Your task to perform on an android device: toggle location history Image 0: 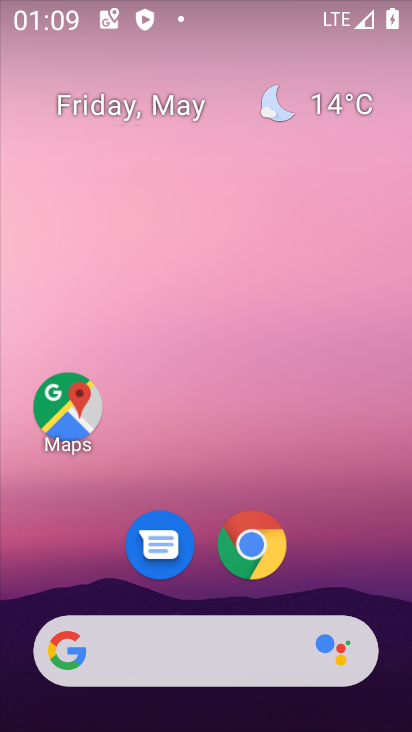
Step 0: drag from (284, 593) to (265, 23)
Your task to perform on an android device: toggle location history Image 1: 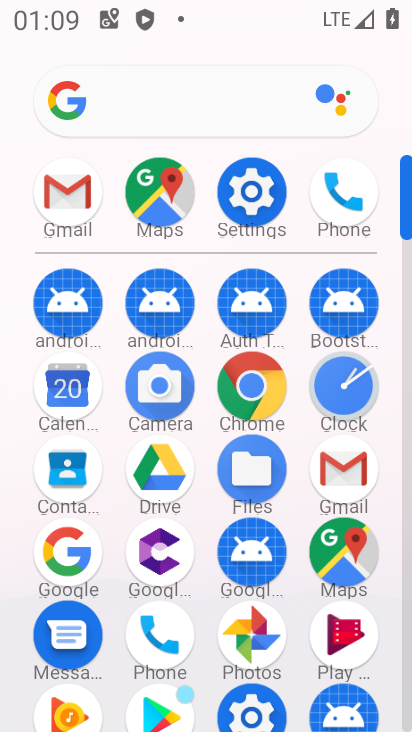
Step 1: click (228, 199)
Your task to perform on an android device: toggle location history Image 2: 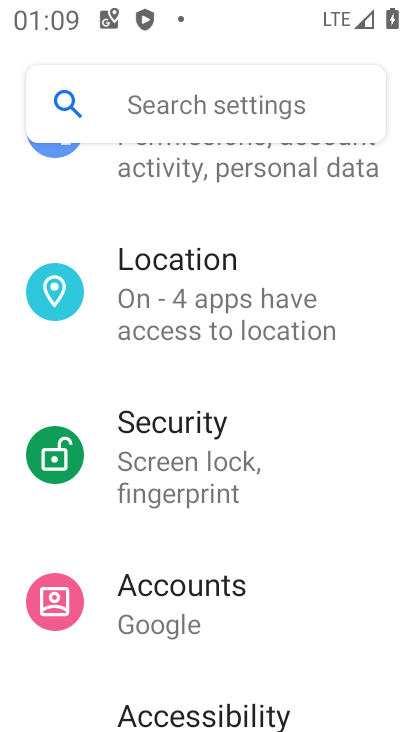
Step 2: click (208, 299)
Your task to perform on an android device: toggle location history Image 3: 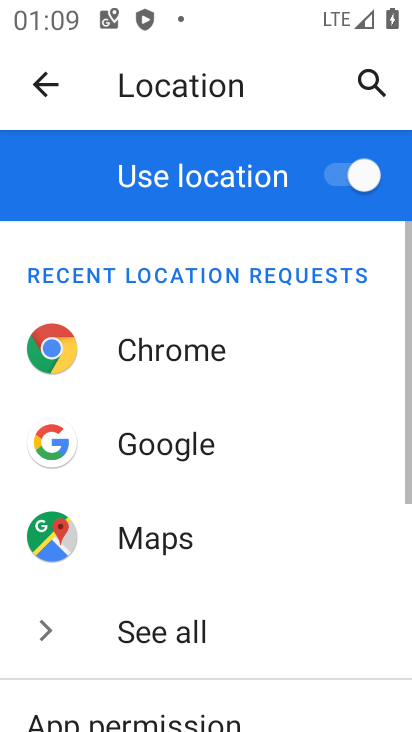
Step 3: drag from (223, 671) to (231, 221)
Your task to perform on an android device: toggle location history Image 4: 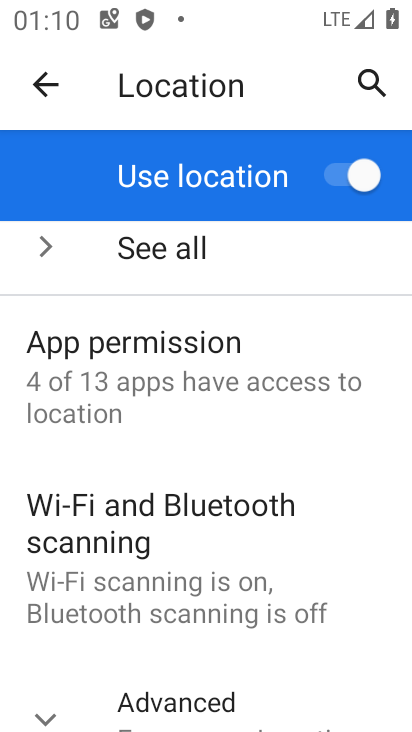
Step 4: drag from (178, 668) to (183, 435)
Your task to perform on an android device: toggle location history Image 5: 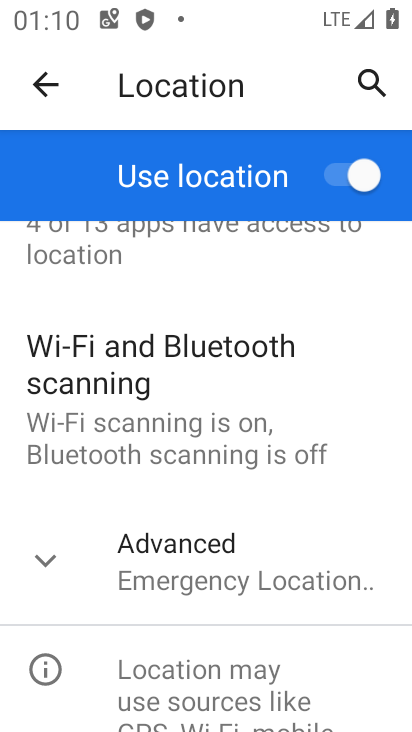
Step 5: click (182, 587)
Your task to perform on an android device: toggle location history Image 6: 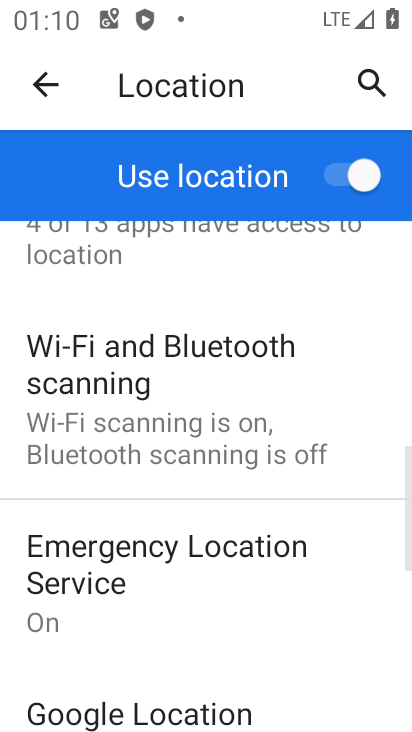
Step 6: drag from (215, 674) to (222, 406)
Your task to perform on an android device: toggle location history Image 7: 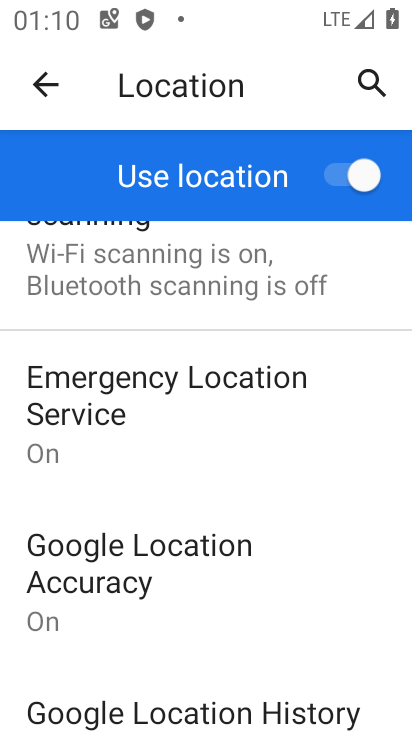
Step 7: drag from (216, 582) to (202, 438)
Your task to perform on an android device: toggle location history Image 8: 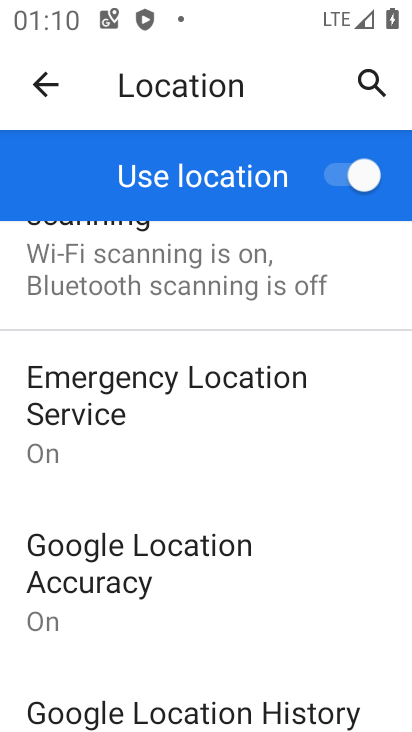
Step 8: click (193, 711)
Your task to perform on an android device: toggle location history Image 9: 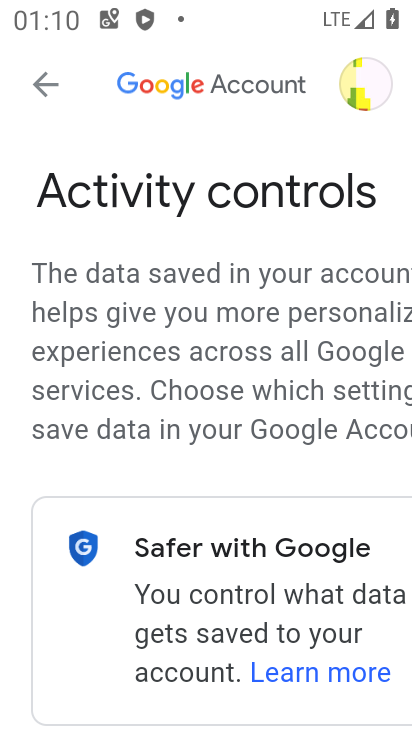
Step 9: drag from (281, 583) to (319, 134)
Your task to perform on an android device: toggle location history Image 10: 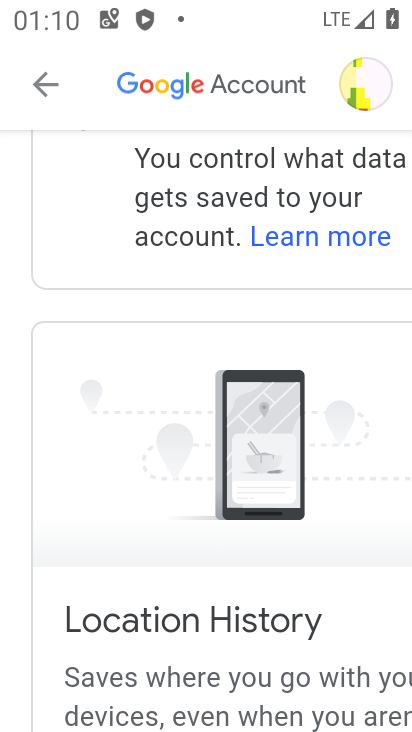
Step 10: drag from (256, 628) to (254, 280)
Your task to perform on an android device: toggle location history Image 11: 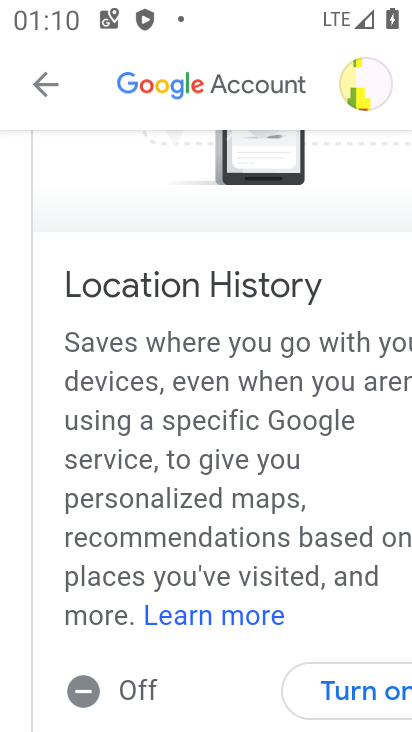
Step 11: click (352, 687)
Your task to perform on an android device: toggle location history Image 12: 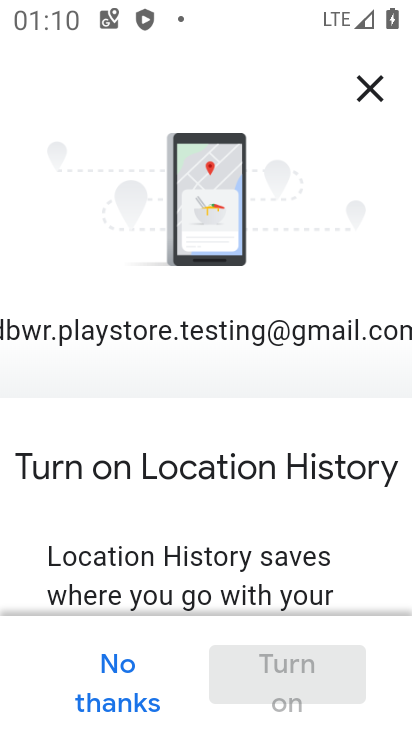
Step 12: drag from (197, 578) to (188, 134)
Your task to perform on an android device: toggle location history Image 13: 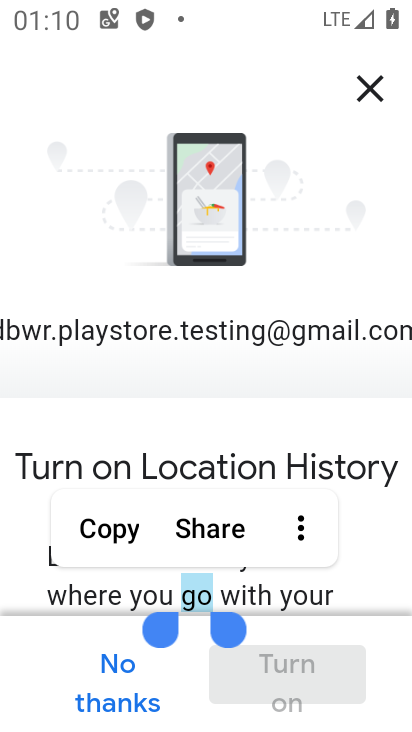
Step 13: drag from (355, 555) to (338, 199)
Your task to perform on an android device: toggle location history Image 14: 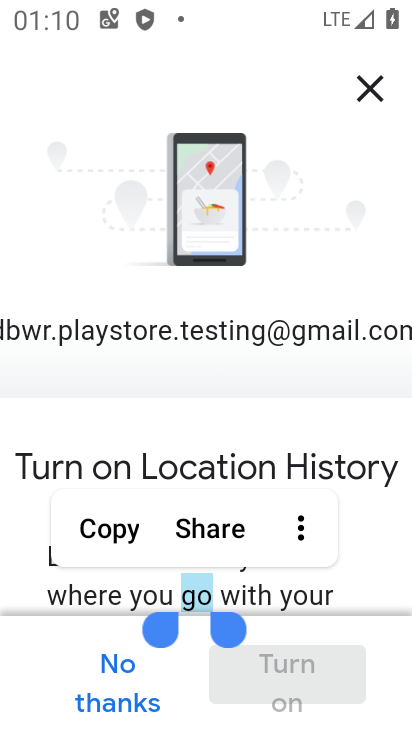
Step 14: drag from (357, 518) to (322, 236)
Your task to perform on an android device: toggle location history Image 15: 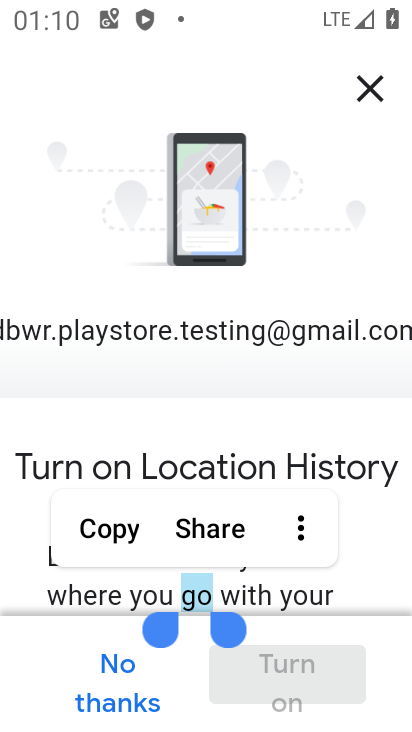
Step 15: drag from (359, 581) to (346, 289)
Your task to perform on an android device: toggle location history Image 16: 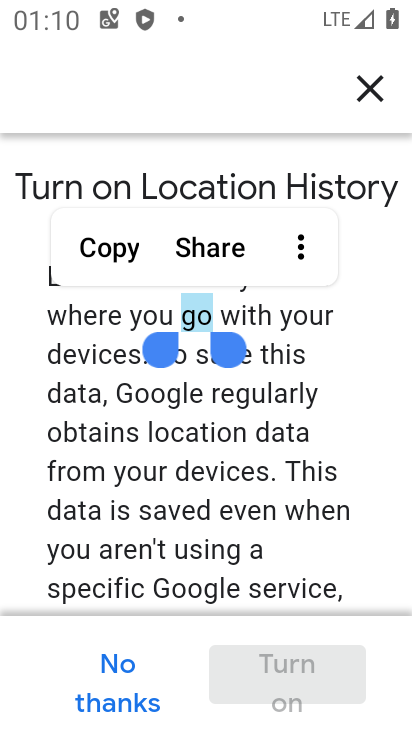
Step 16: drag from (291, 428) to (293, 214)
Your task to perform on an android device: toggle location history Image 17: 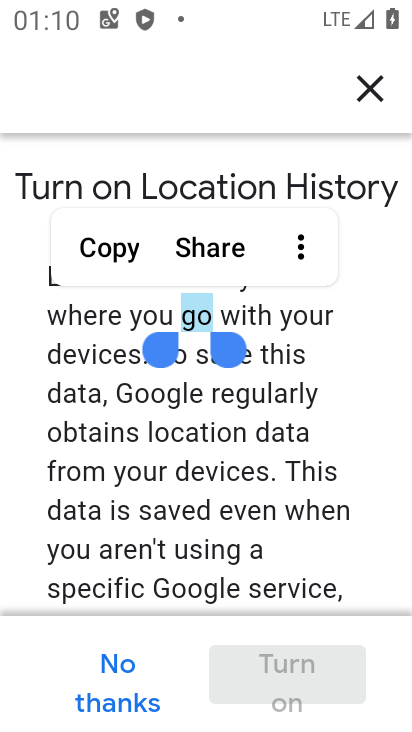
Step 17: drag from (194, 547) to (214, 293)
Your task to perform on an android device: toggle location history Image 18: 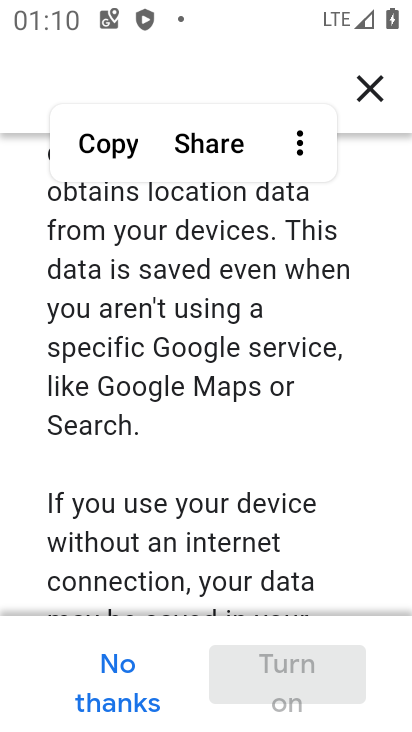
Step 18: drag from (192, 550) to (225, 182)
Your task to perform on an android device: toggle location history Image 19: 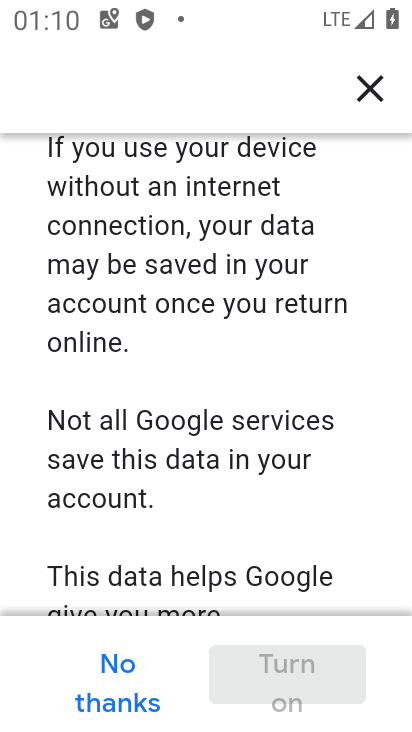
Step 19: drag from (179, 541) to (197, 233)
Your task to perform on an android device: toggle location history Image 20: 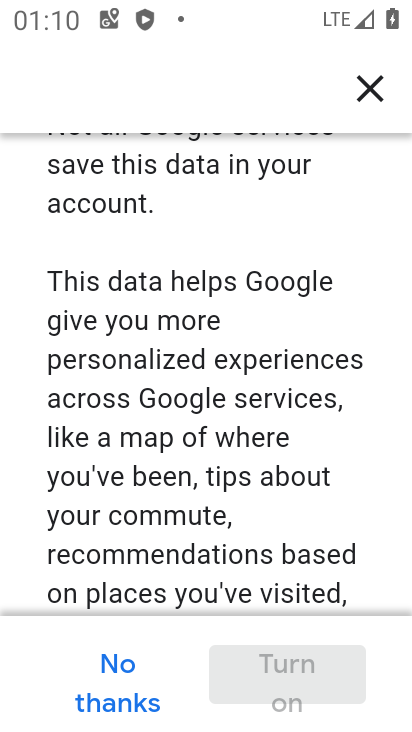
Step 20: drag from (176, 555) to (227, 211)
Your task to perform on an android device: toggle location history Image 21: 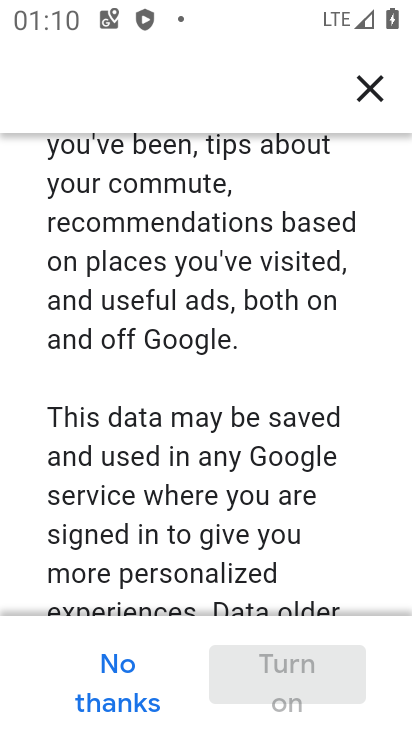
Step 21: drag from (220, 541) to (242, 160)
Your task to perform on an android device: toggle location history Image 22: 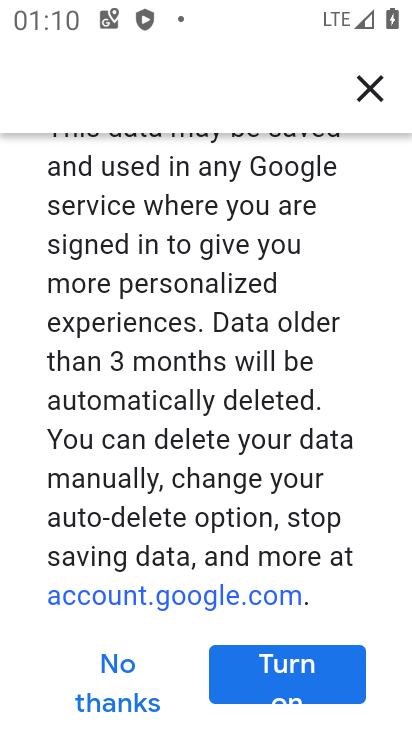
Step 22: drag from (236, 558) to (251, 184)
Your task to perform on an android device: toggle location history Image 23: 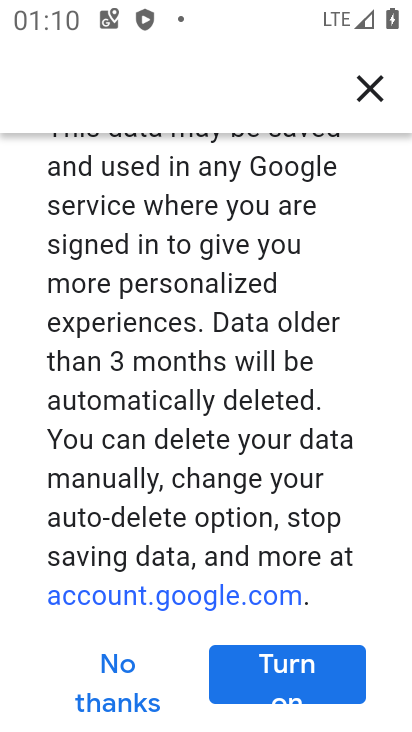
Step 23: click (277, 684)
Your task to perform on an android device: toggle location history Image 24: 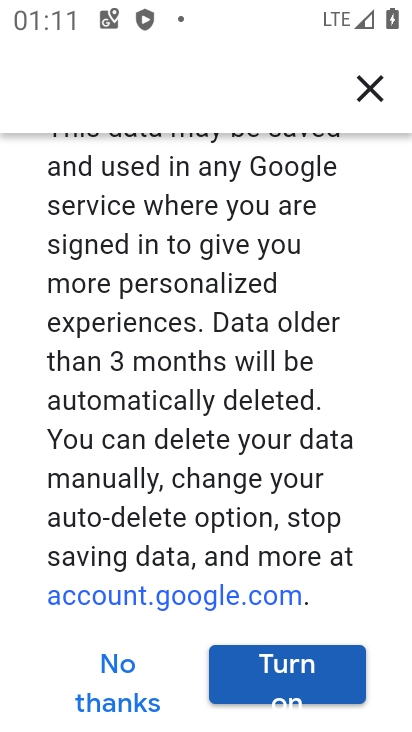
Step 24: click (274, 680)
Your task to perform on an android device: toggle location history Image 25: 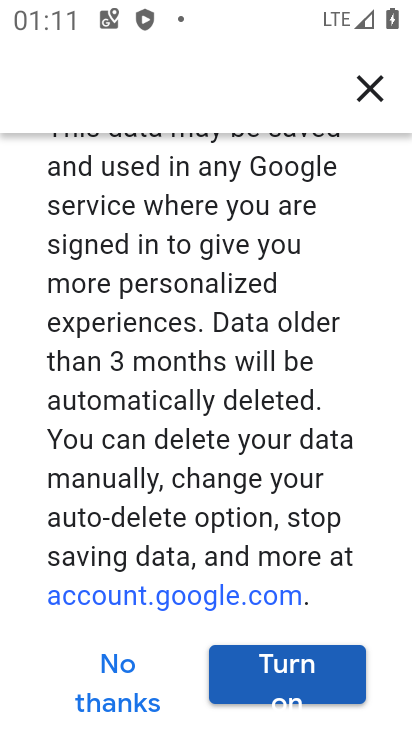
Step 25: click (274, 680)
Your task to perform on an android device: toggle location history Image 26: 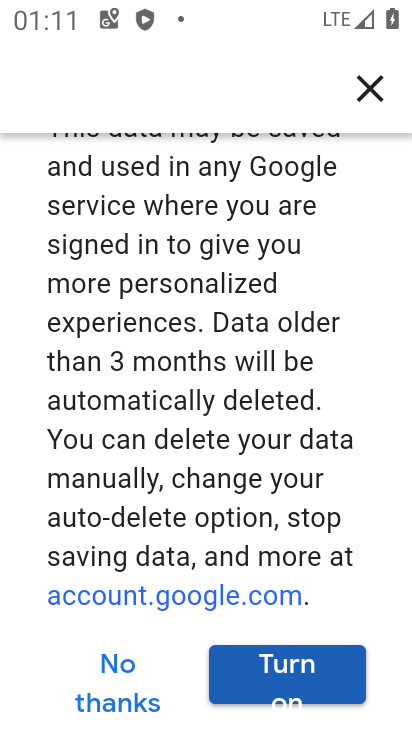
Step 26: drag from (258, 463) to (288, 254)
Your task to perform on an android device: toggle location history Image 27: 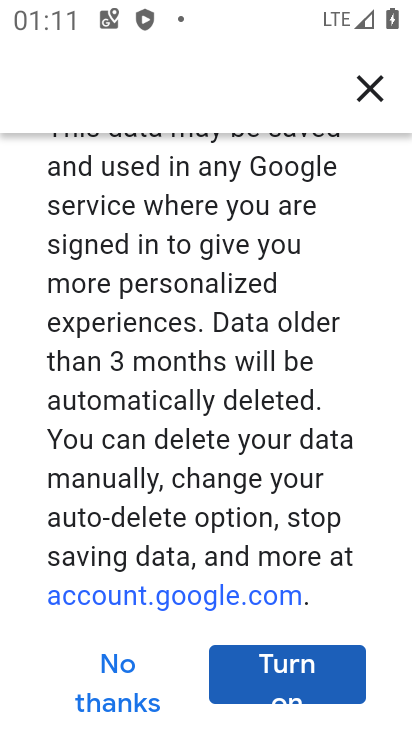
Step 27: click (286, 673)
Your task to perform on an android device: toggle location history Image 28: 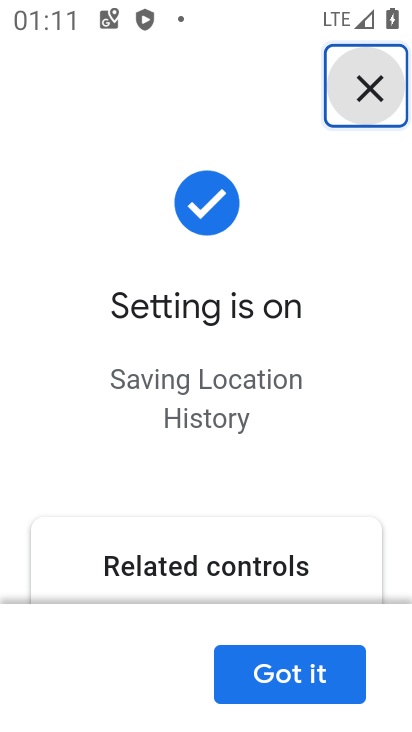
Step 28: click (263, 687)
Your task to perform on an android device: toggle location history Image 29: 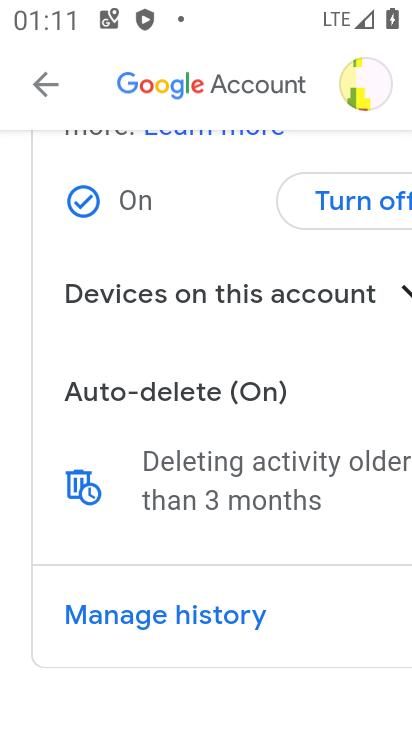
Step 29: task complete